Your task to perform on an android device: see sites visited before in the chrome app Image 0: 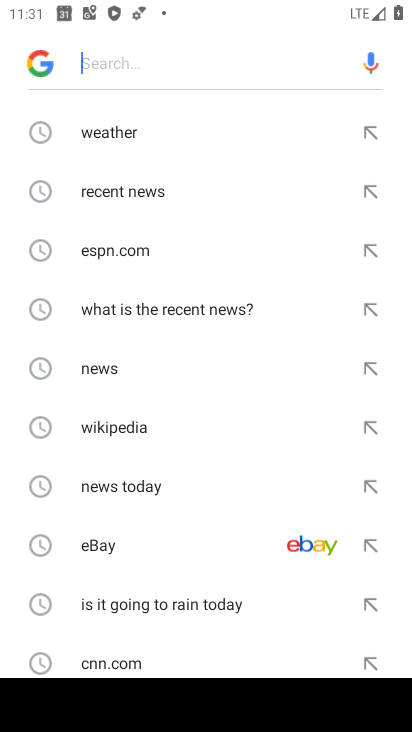
Step 0: press home button
Your task to perform on an android device: see sites visited before in the chrome app Image 1: 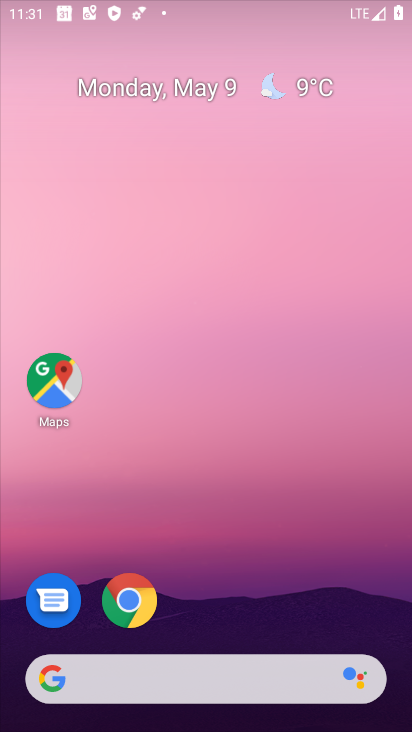
Step 1: drag from (294, 517) to (262, 133)
Your task to perform on an android device: see sites visited before in the chrome app Image 2: 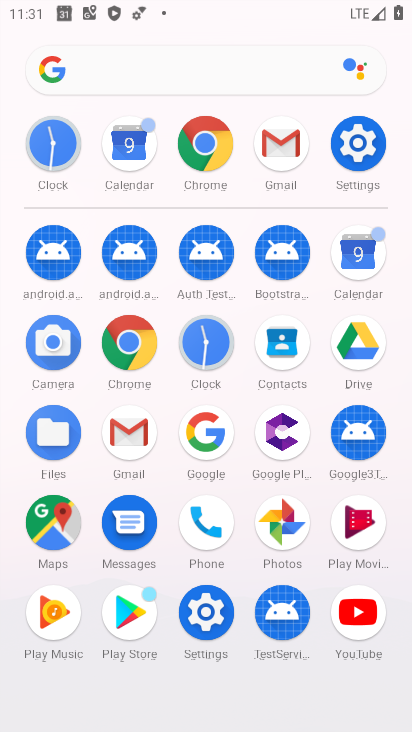
Step 2: click (115, 331)
Your task to perform on an android device: see sites visited before in the chrome app Image 3: 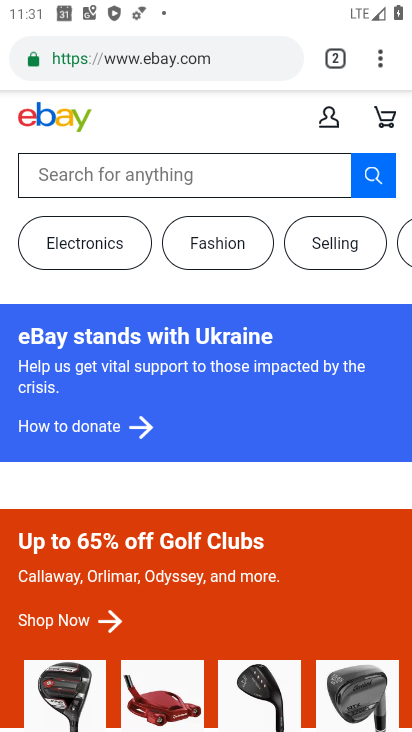
Step 3: click (392, 62)
Your task to perform on an android device: see sites visited before in the chrome app Image 4: 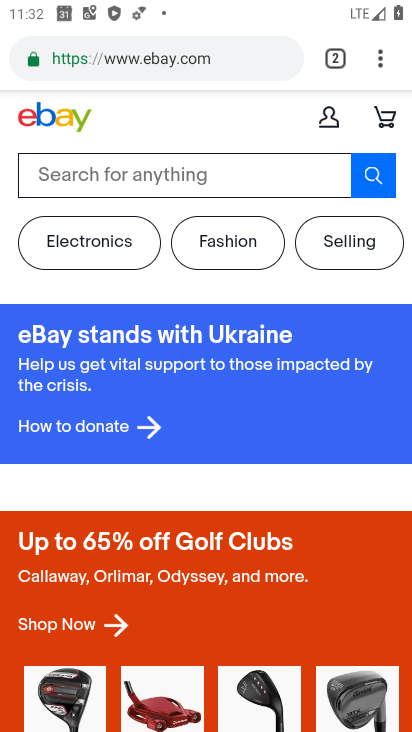
Step 4: task complete